Your task to perform on an android device: turn off translation in the chrome app Image 0: 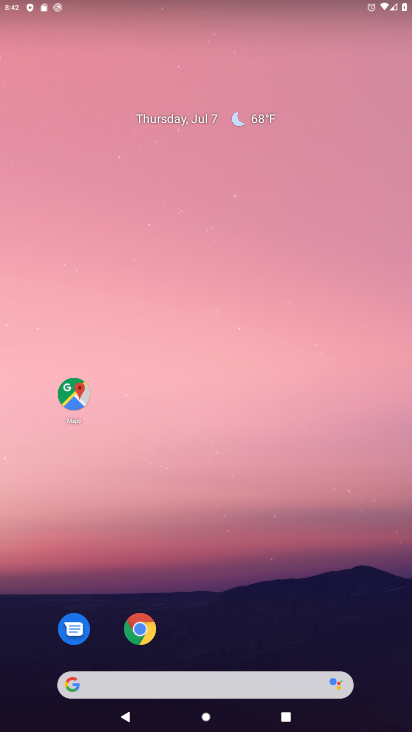
Step 0: click (145, 630)
Your task to perform on an android device: turn off translation in the chrome app Image 1: 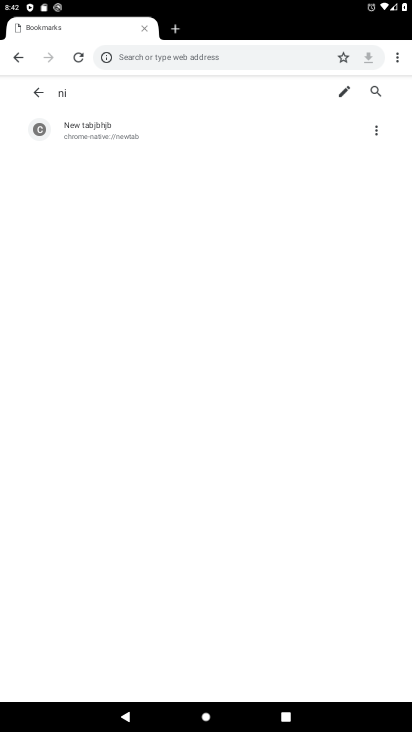
Step 1: click (394, 57)
Your task to perform on an android device: turn off translation in the chrome app Image 2: 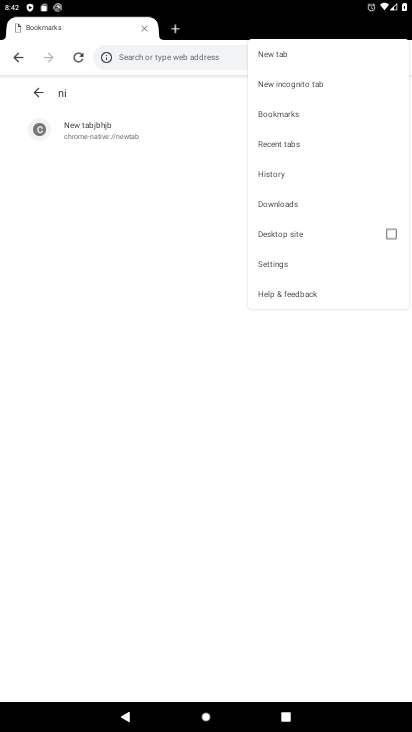
Step 2: click (276, 266)
Your task to perform on an android device: turn off translation in the chrome app Image 3: 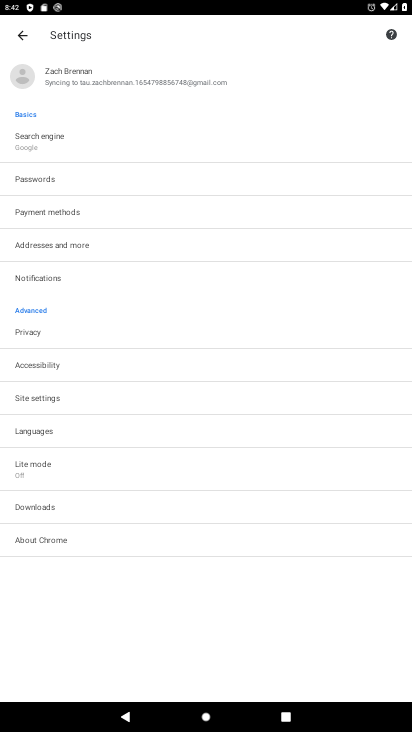
Step 3: click (50, 432)
Your task to perform on an android device: turn off translation in the chrome app Image 4: 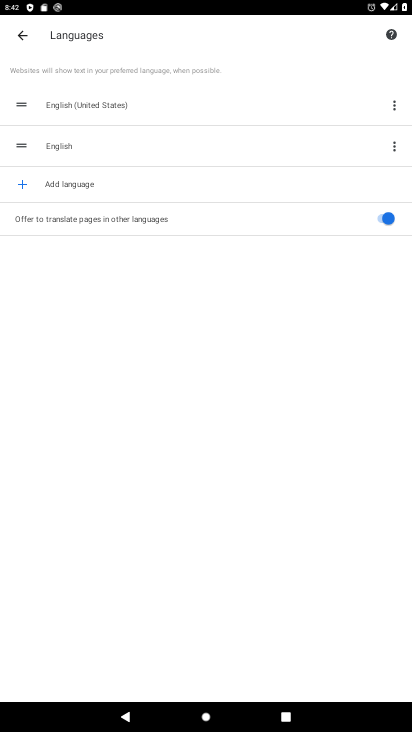
Step 4: click (377, 218)
Your task to perform on an android device: turn off translation in the chrome app Image 5: 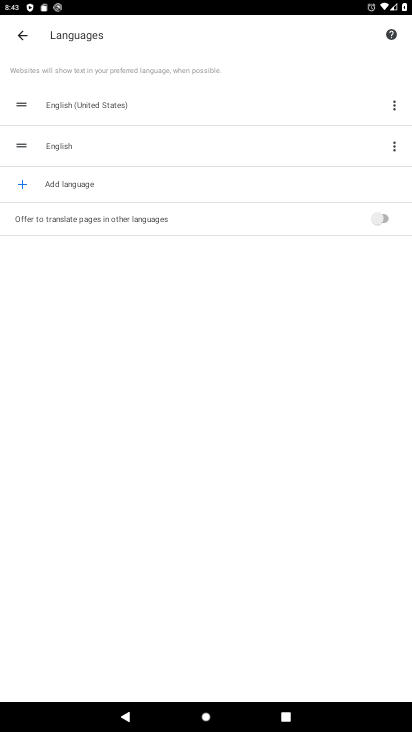
Step 5: task complete